Your task to perform on an android device: Is it going to rain this weekend? Image 0: 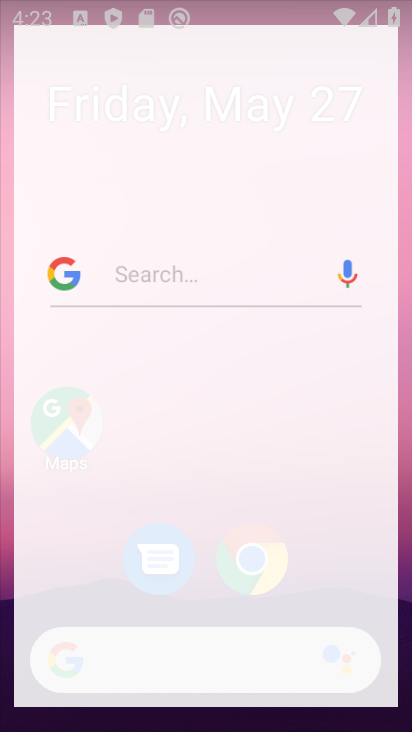
Step 0: click (151, 421)
Your task to perform on an android device: Is it going to rain this weekend? Image 1: 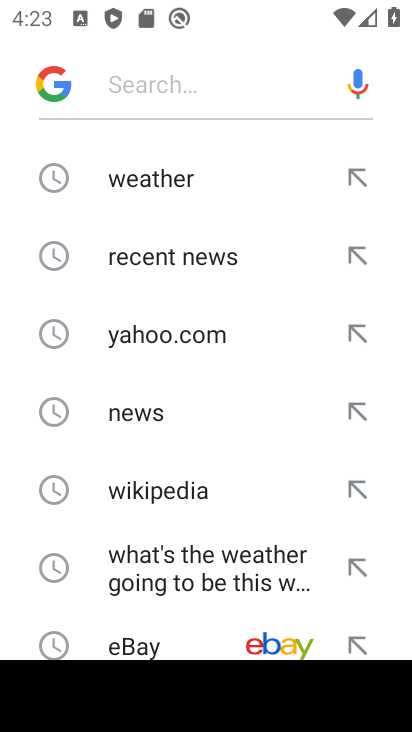
Step 1: press home button
Your task to perform on an android device: Is it going to rain this weekend? Image 2: 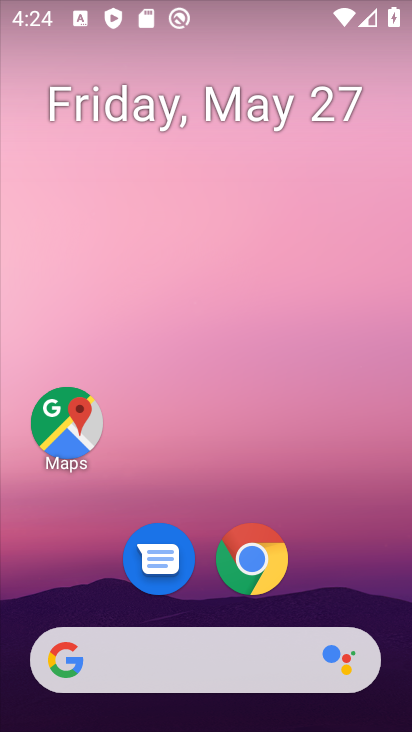
Step 2: click (184, 647)
Your task to perform on an android device: Is it going to rain this weekend? Image 3: 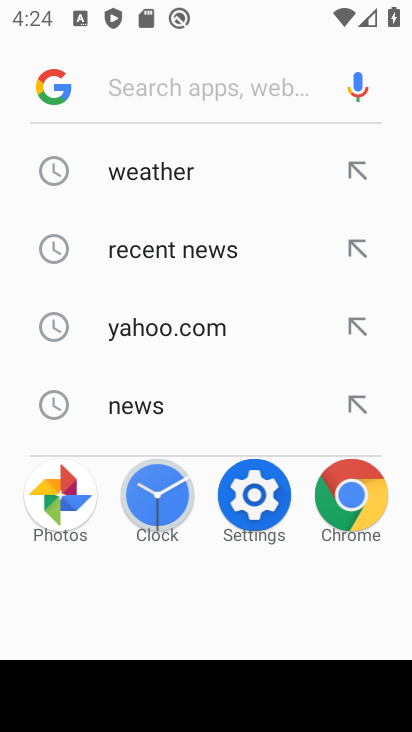
Step 3: click (156, 170)
Your task to perform on an android device: Is it going to rain this weekend? Image 4: 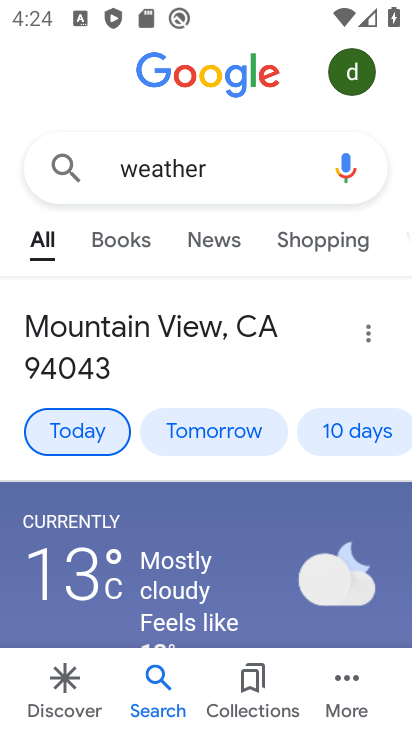
Step 4: click (342, 419)
Your task to perform on an android device: Is it going to rain this weekend? Image 5: 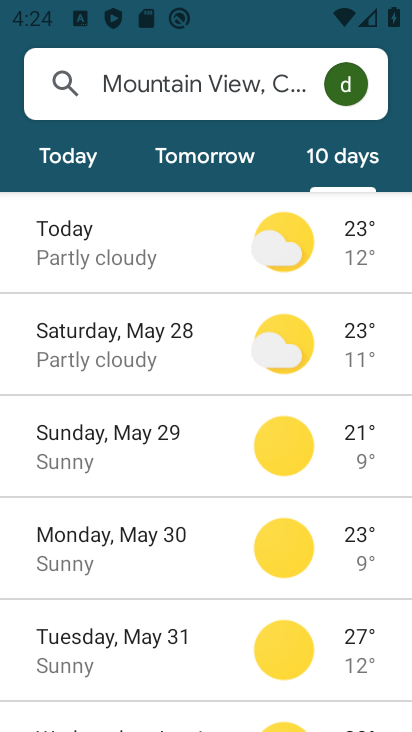
Step 5: task complete